Your task to perform on an android device: What's on my calendar tomorrow? Image 0: 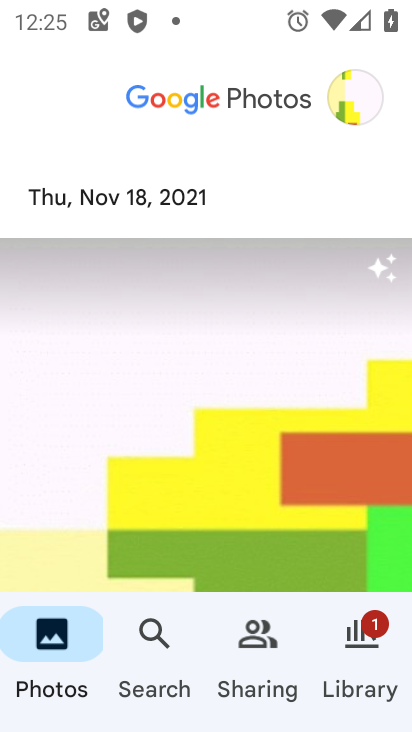
Step 0: press home button
Your task to perform on an android device: What's on my calendar tomorrow? Image 1: 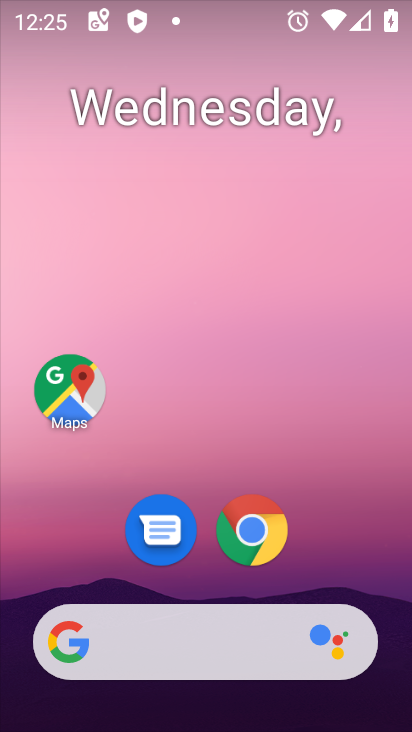
Step 1: drag from (249, 576) to (293, 219)
Your task to perform on an android device: What's on my calendar tomorrow? Image 2: 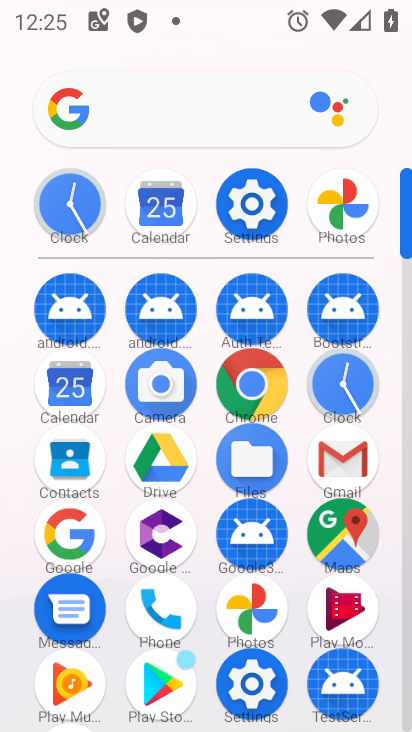
Step 2: click (75, 393)
Your task to perform on an android device: What's on my calendar tomorrow? Image 3: 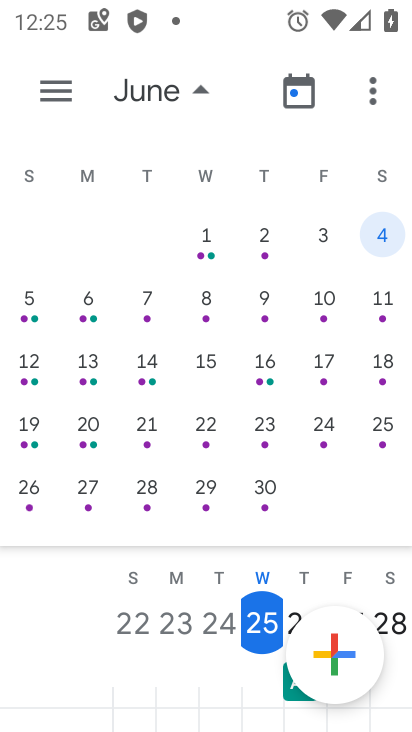
Step 3: drag from (91, 376) to (388, 328)
Your task to perform on an android device: What's on my calendar tomorrow? Image 4: 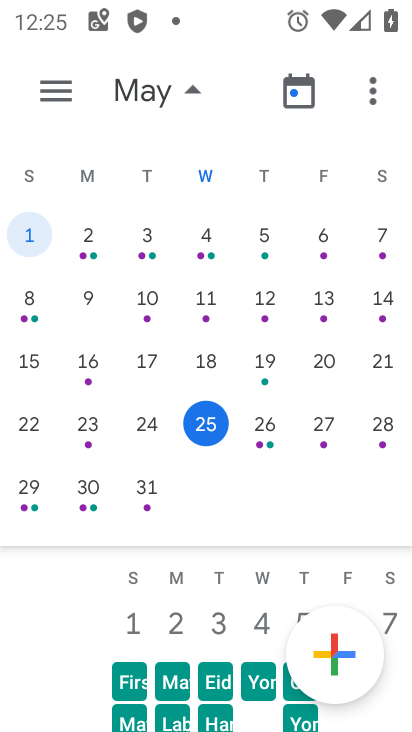
Step 4: click (263, 428)
Your task to perform on an android device: What's on my calendar tomorrow? Image 5: 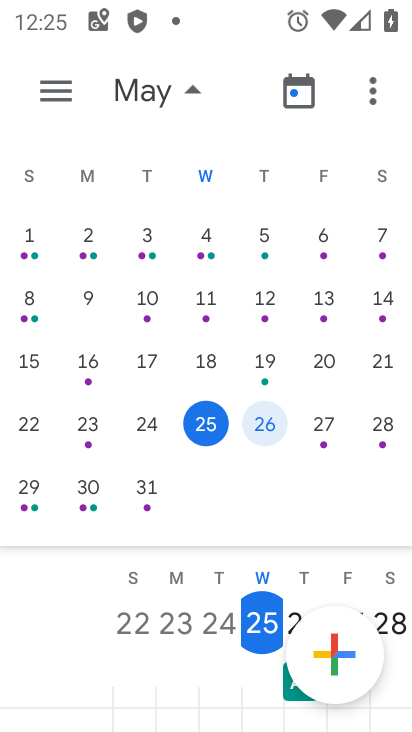
Step 5: task complete